Your task to perform on an android device: turn off wifi Image 0: 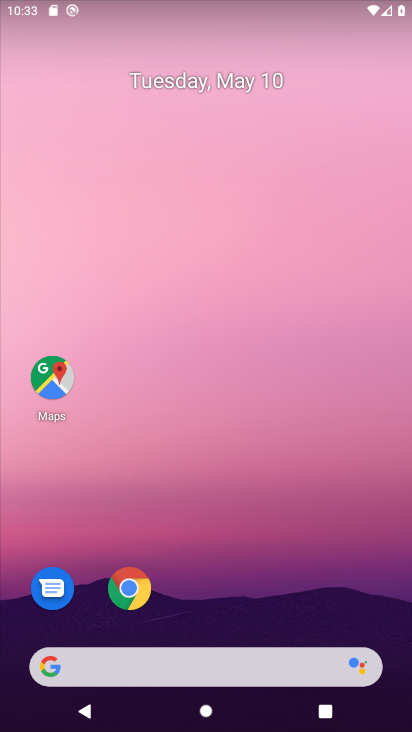
Step 0: drag from (220, 607) to (236, 215)
Your task to perform on an android device: turn off wifi Image 1: 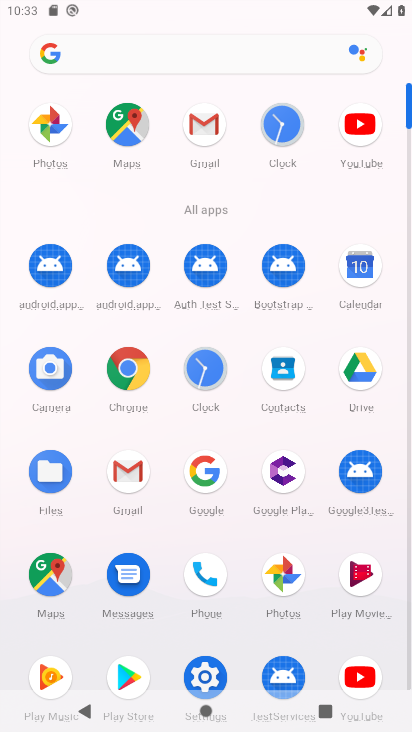
Step 1: click (192, 667)
Your task to perform on an android device: turn off wifi Image 2: 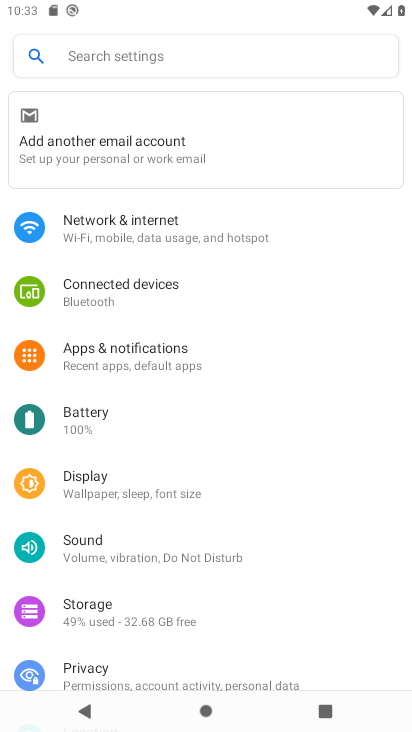
Step 2: click (157, 229)
Your task to perform on an android device: turn off wifi Image 3: 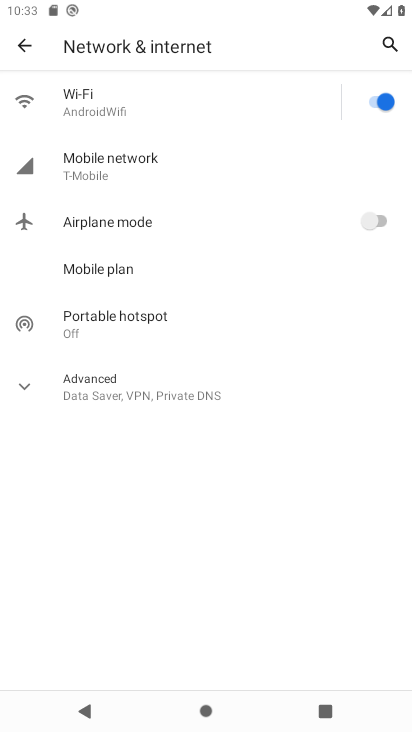
Step 3: click (377, 90)
Your task to perform on an android device: turn off wifi Image 4: 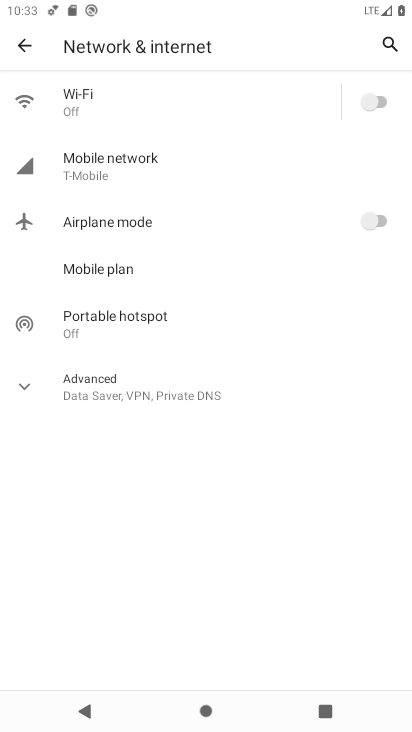
Step 4: task complete